Your task to perform on an android device: toggle location history Image 0: 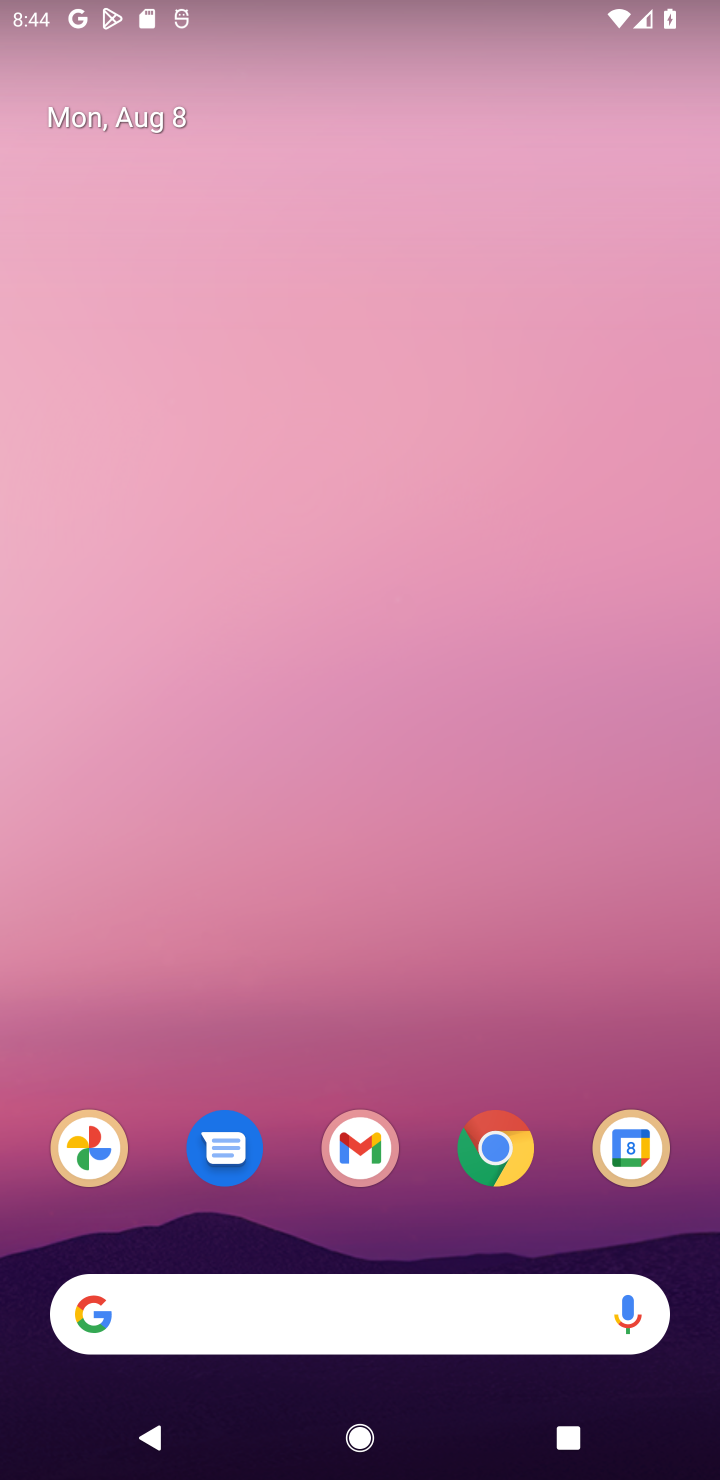
Step 0: drag from (341, 1080) to (346, 0)
Your task to perform on an android device: toggle location history Image 1: 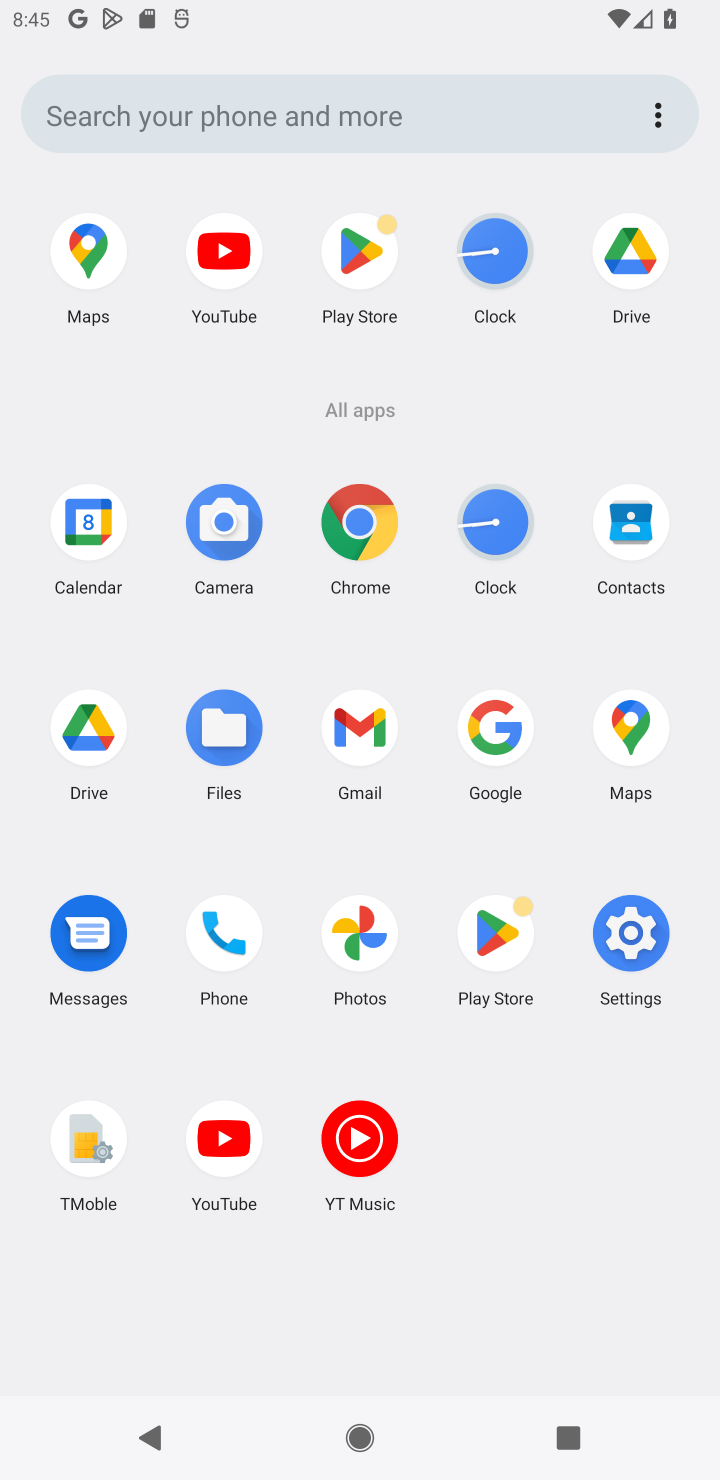
Step 1: click (618, 925)
Your task to perform on an android device: toggle location history Image 2: 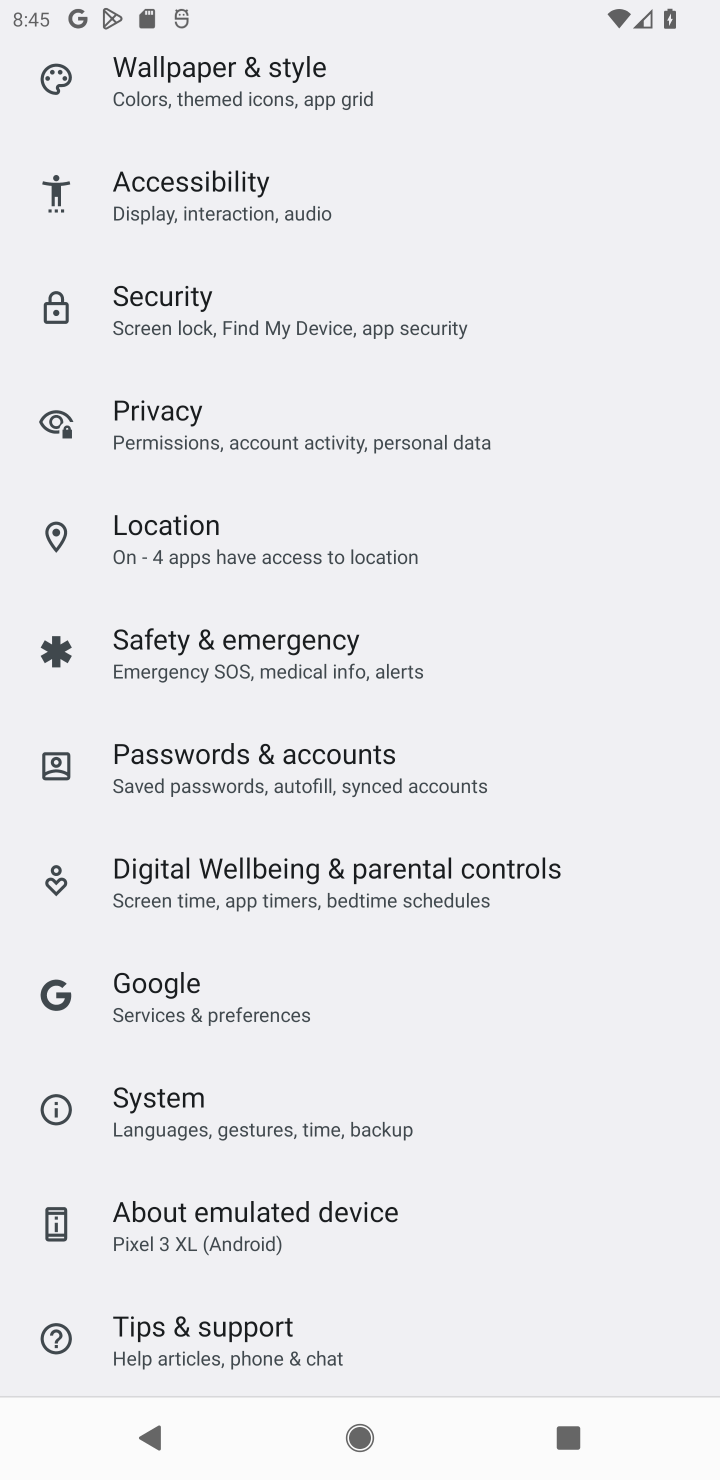
Step 2: click (162, 538)
Your task to perform on an android device: toggle location history Image 3: 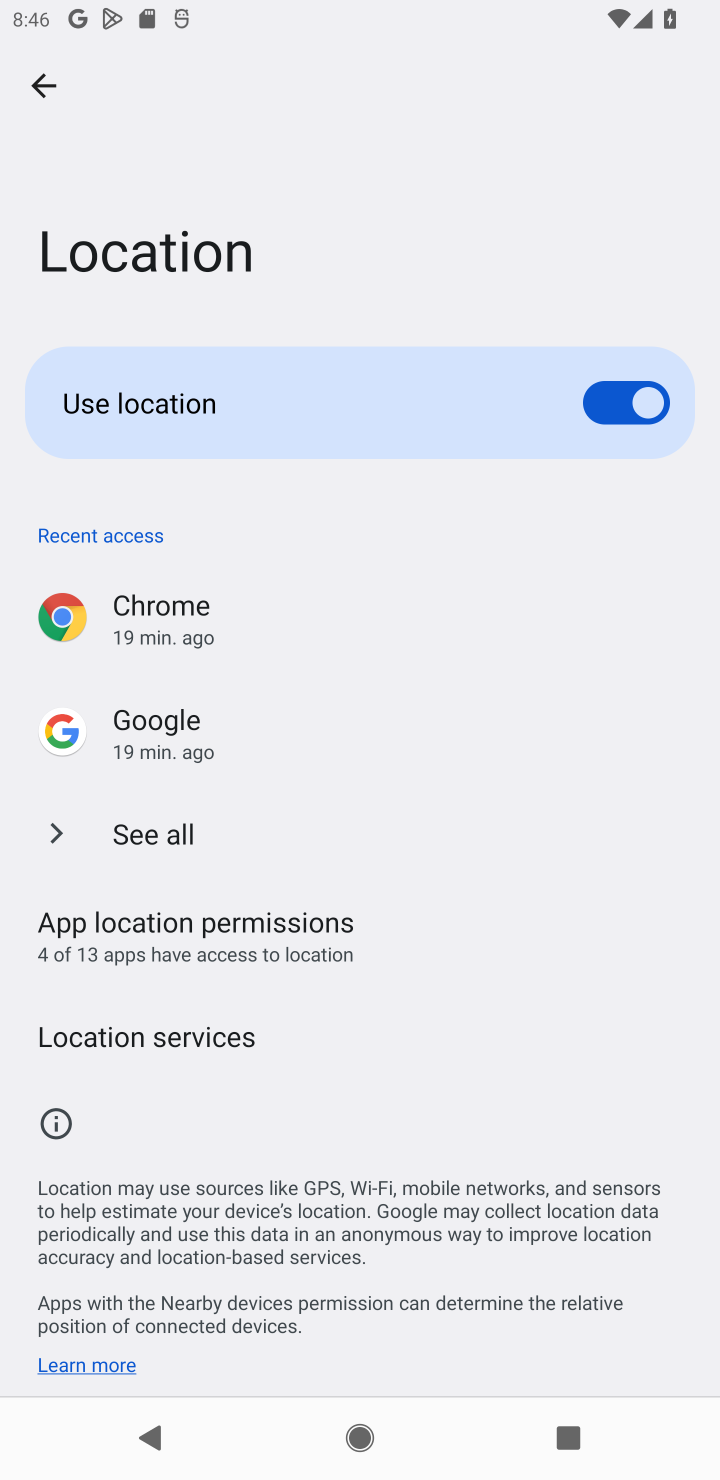
Step 3: click (237, 1043)
Your task to perform on an android device: toggle location history Image 4: 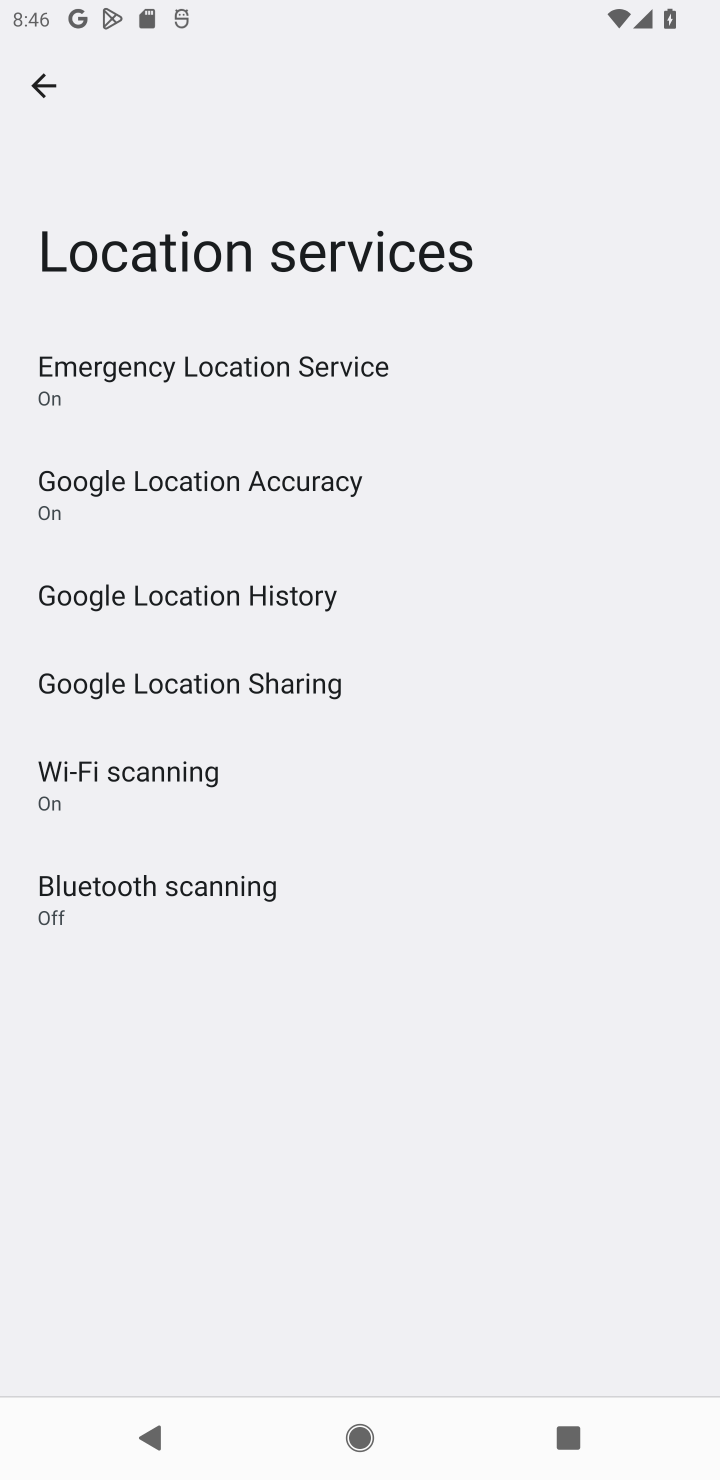
Step 4: click (215, 590)
Your task to perform on an android device: toggle location history Image 5: 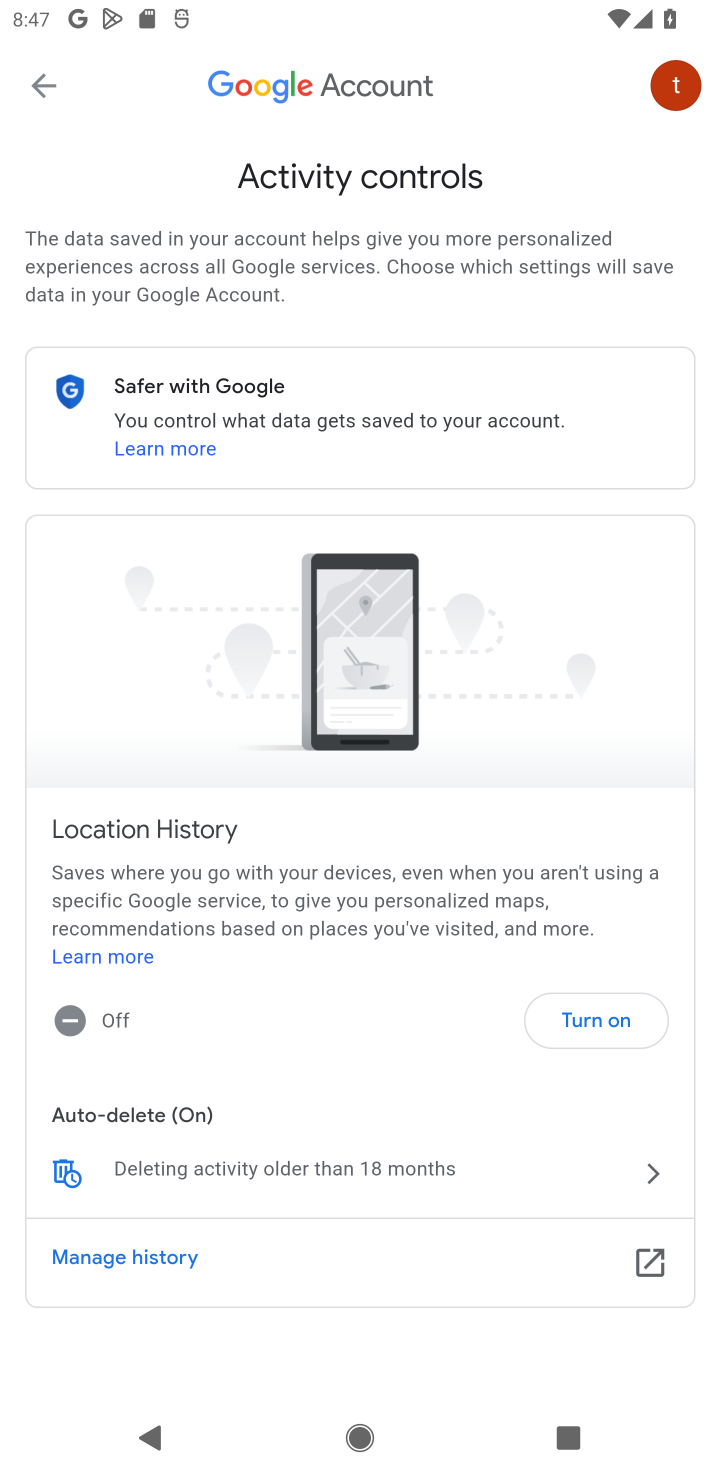
Step 5: click (572, 1012)
Your task to perform on an android device: toggle location history Image 6: 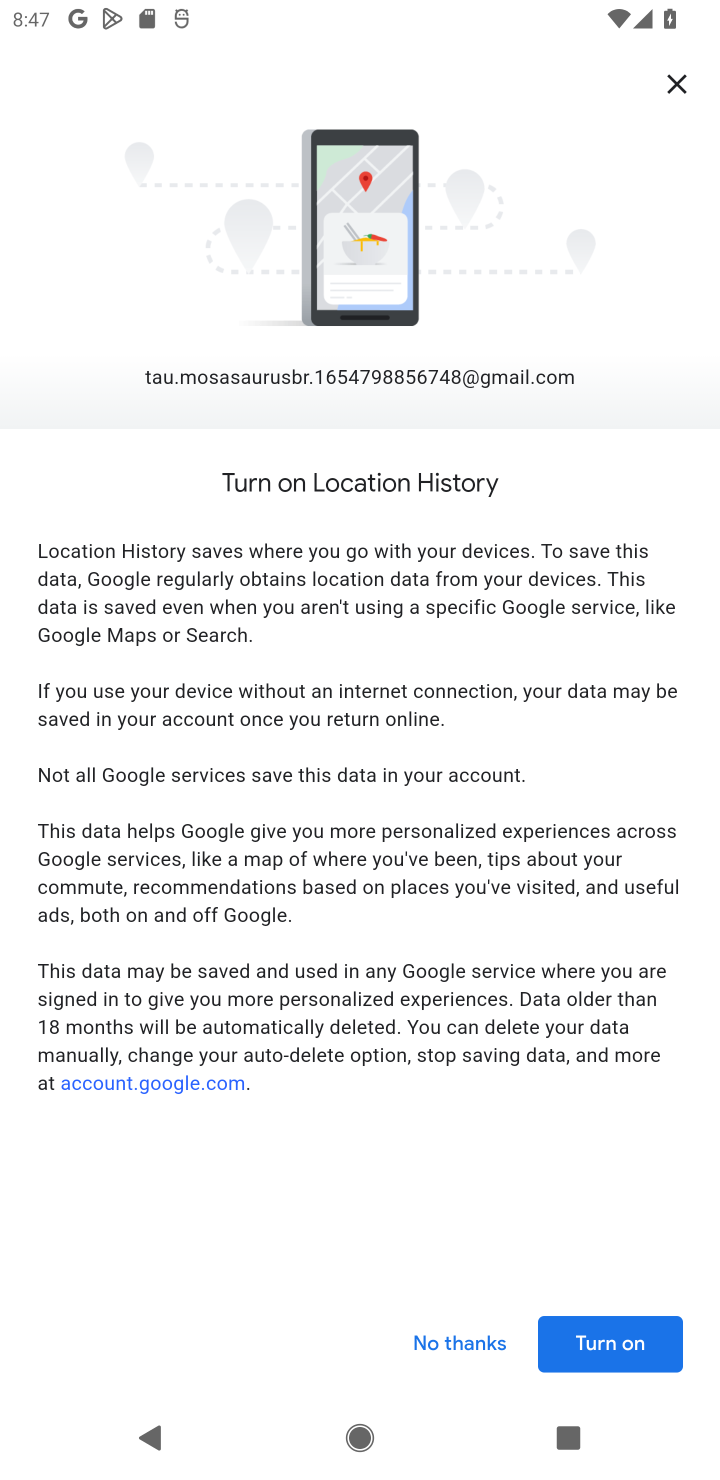
Step 6: click (621, 1341)
Your task to perform on an android device: toggle location history Image 7: 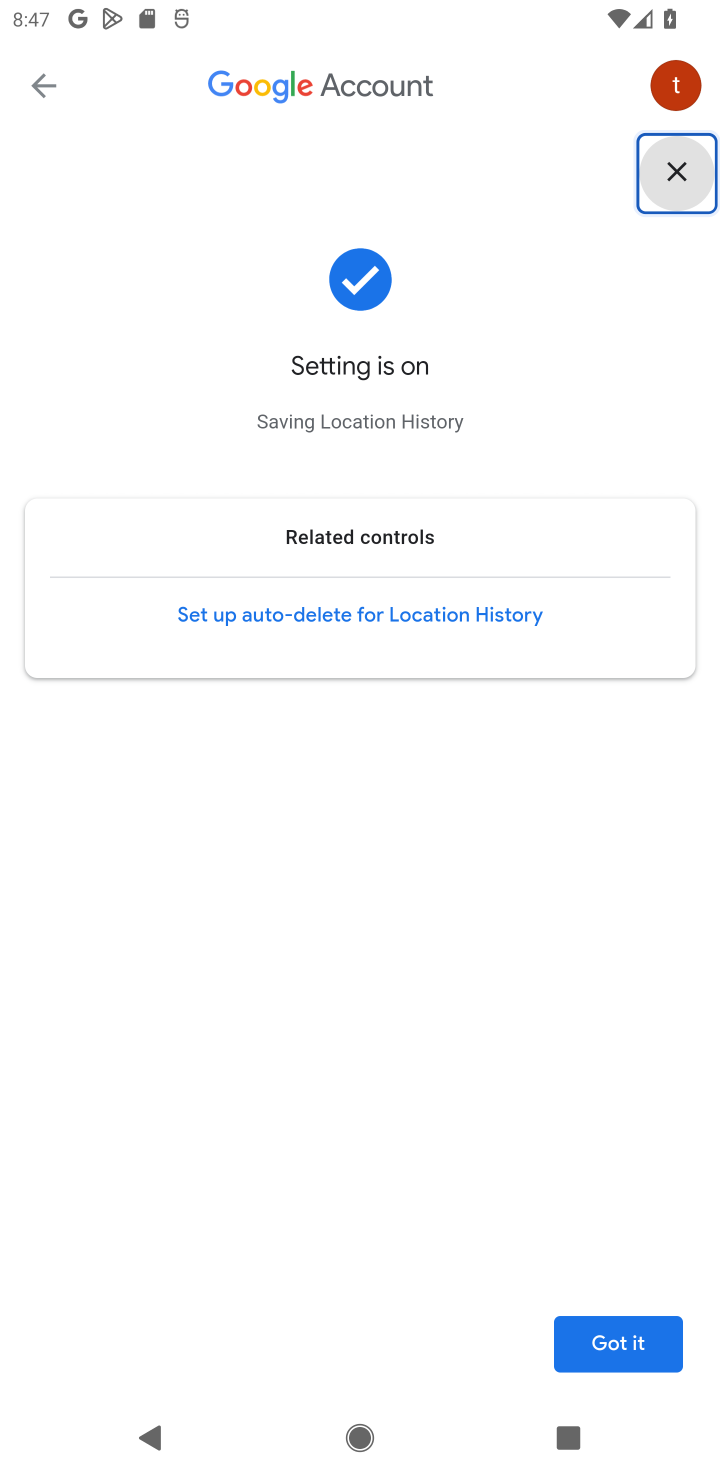
Step 7: click (635, 1348)
Your task to perform on an android device: toggle location history Image 8: 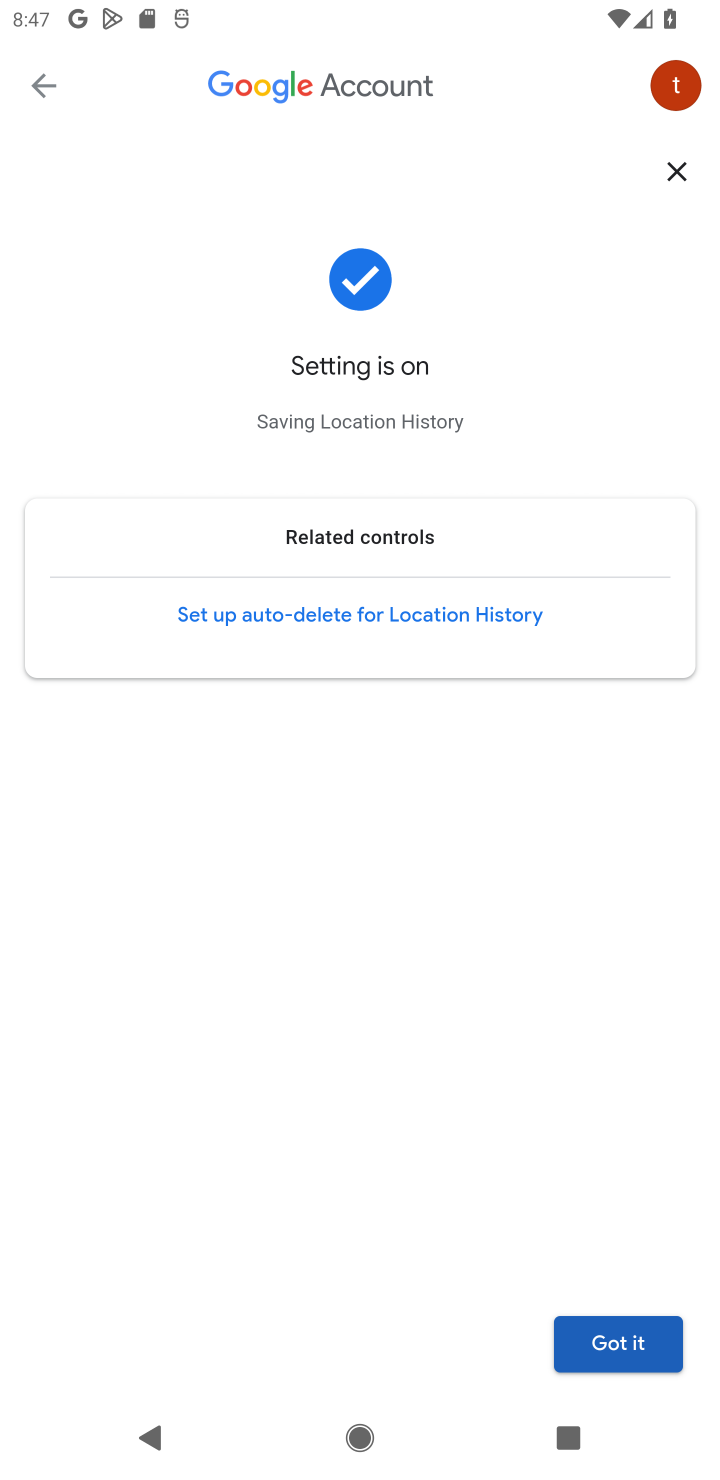
Step 8: task complete